Your task to perform on an android device: Search for Mexican restaurants on Maps Image 0: 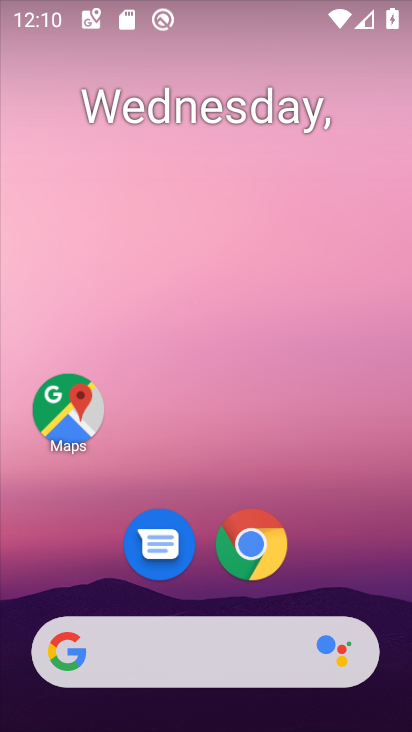
Step 0: drag from (246, 432) to (165, 145)
Your task to perform on an android device: Search for Mexican restaurants on Maps Image 1: 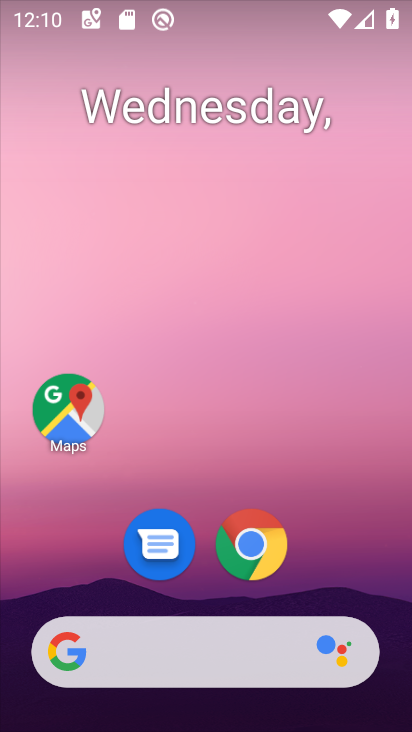
Step 1: drag from (207, 496) to (125, 20)
Your task to perform on an android device: Search for Mexican restaurants on Maps Image 2: 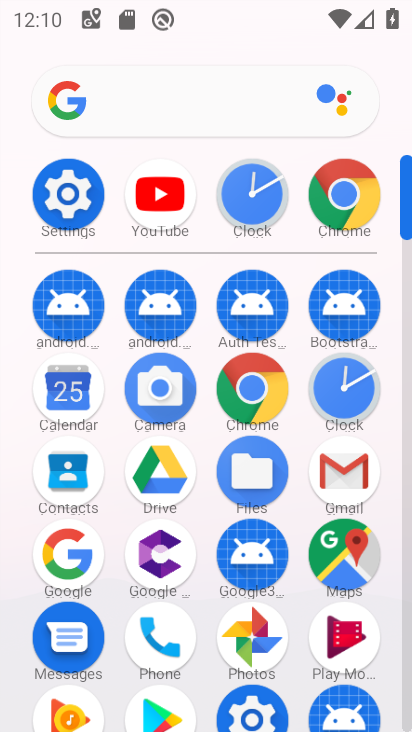
Step 2: drag from (203, 280) to (198, 134)
Your task to perform on an android device: Search for Mexican restaurants on Maps Image 3: 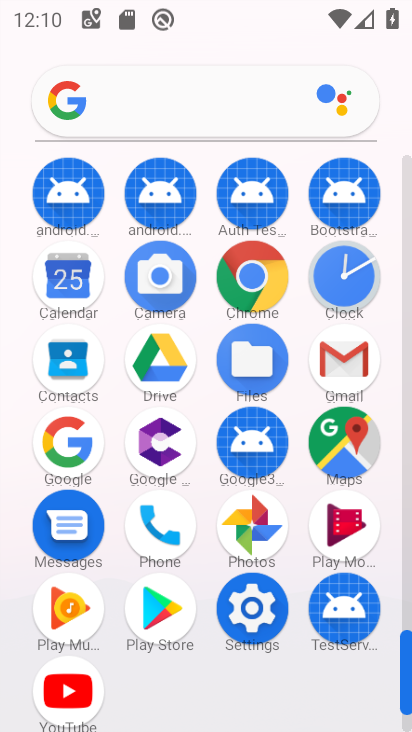
Step 3: click (357, 449)
Your task to perform on an android device: Search for Mexican restaurants on Maps Image 4: 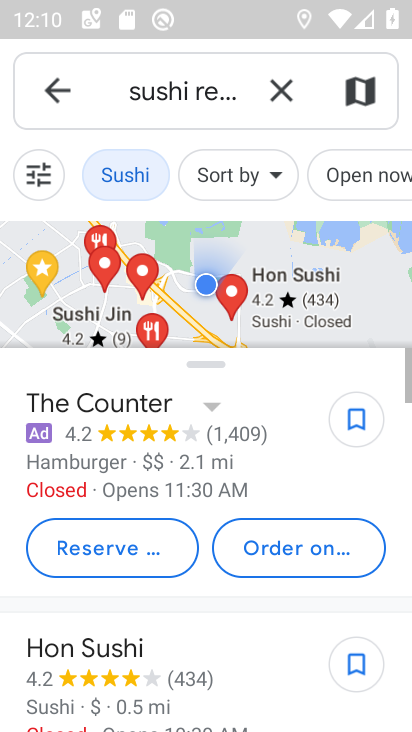
Step 4: click (279, 80)
Your task to perform on an android device: Search for Mexican restaurants on Maps Image 5: 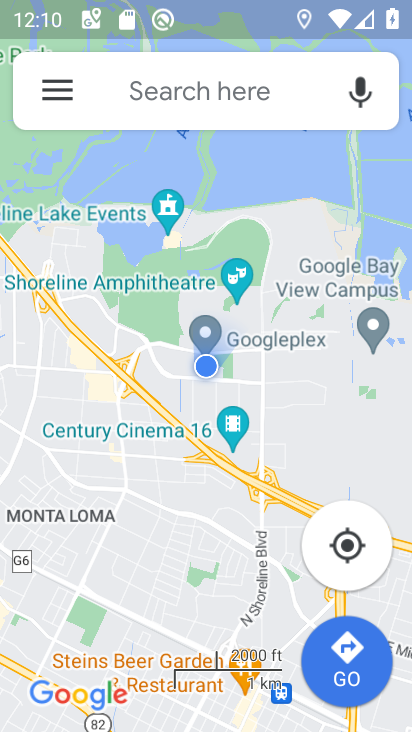
Step 5: click (181, 101)
Your task to perform on an android device: Search for Mexican restaurants on Maps Image 6: 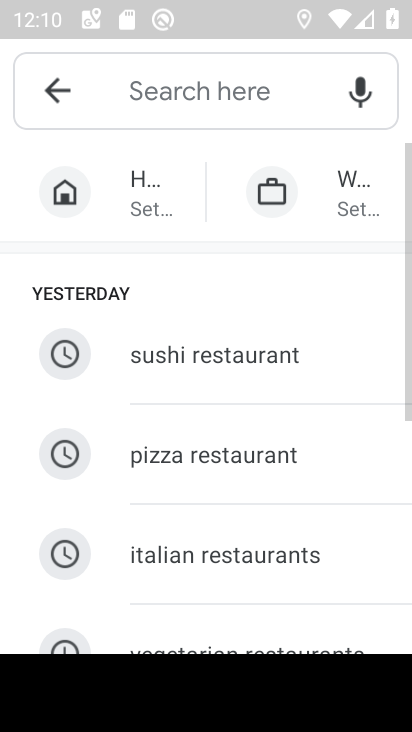
Step 6: drag from (127, 589) to (106, 256)
Your task to perform on an android device: Search for Mexican restaurants on Maps Image 7: 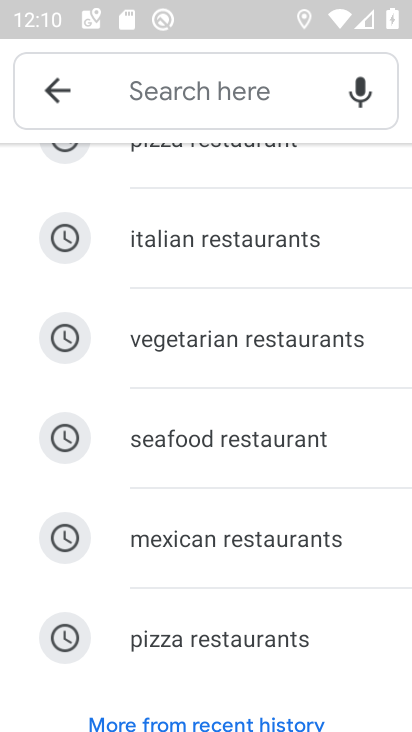
Step 7: click (188, 547)
Your task to perform on an android device: Search for Mexican restaurants on Maps Image 8: 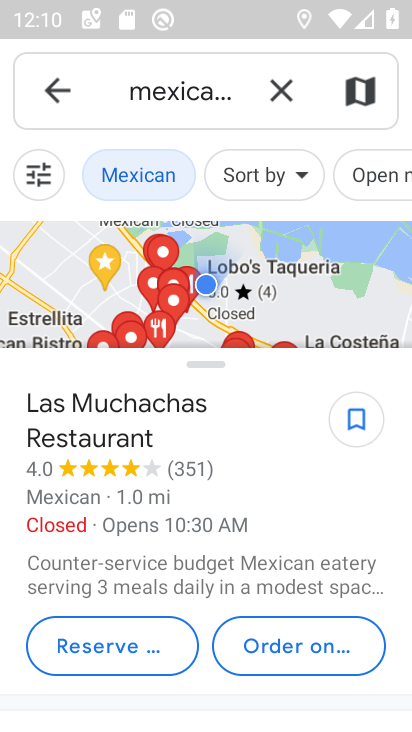
Step 8: task complete